Your task to perform on an android device: allow cookies in the chrome app Image 0: 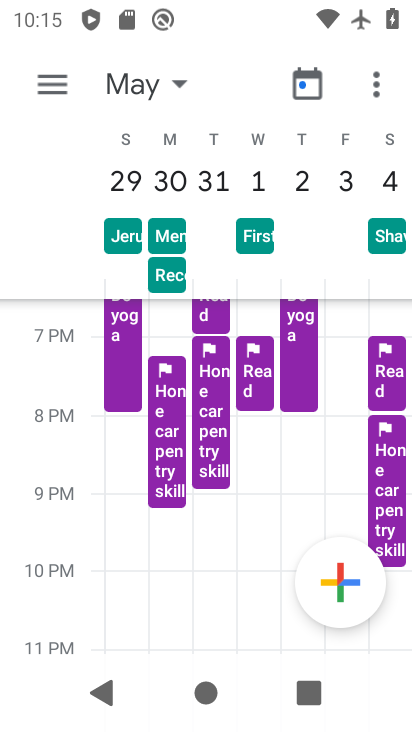
Step 0: press home button
Your task to perform on an android device: allow cookies in the chrome app Image 1: 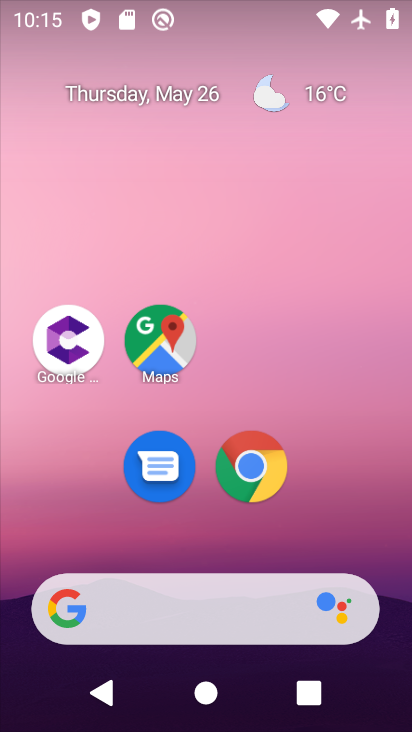
Step 1: click (259, 469)
Your task to perform on an android device: allow cookies in the chrome app Image 2: 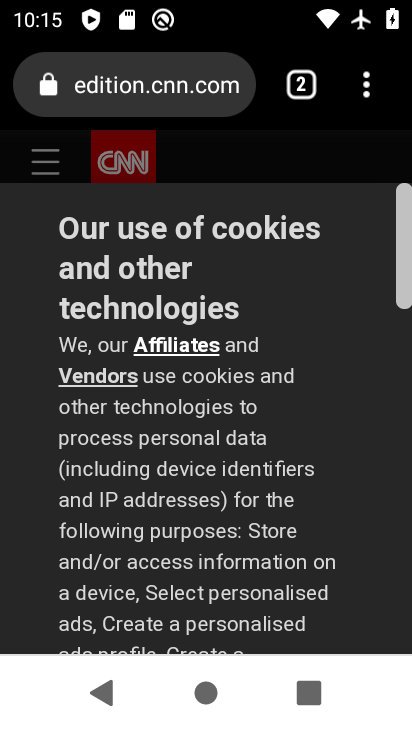
Step 2: click (367, 78)
Your task to perform on an android device: allow cookies in the chrome app Image 3: 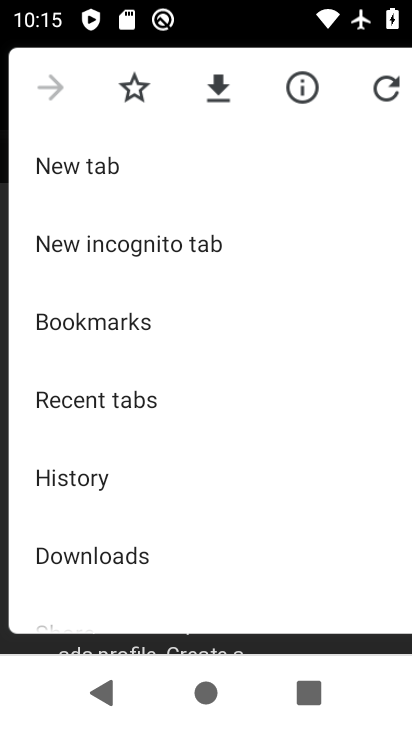
Step 3: drag from (206, 497) to (160, 175)
Your task to perform on an android device: allow cookies in the chrome app Image 4: 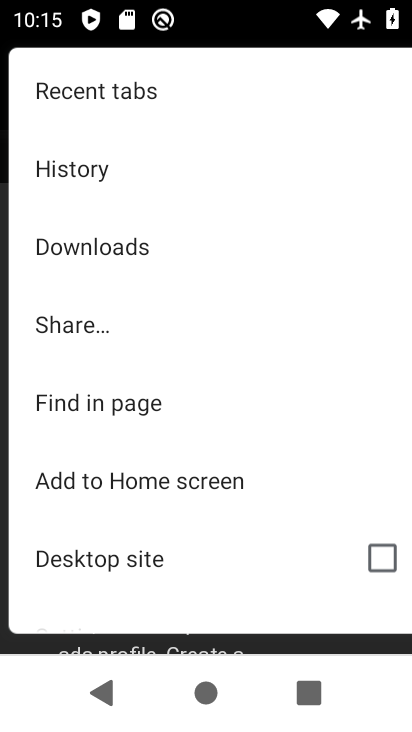
Step 4: drag from (211, 512) to (180, 178)
Your task to perform on an android device: allow cookies in the chrome app Image 5: 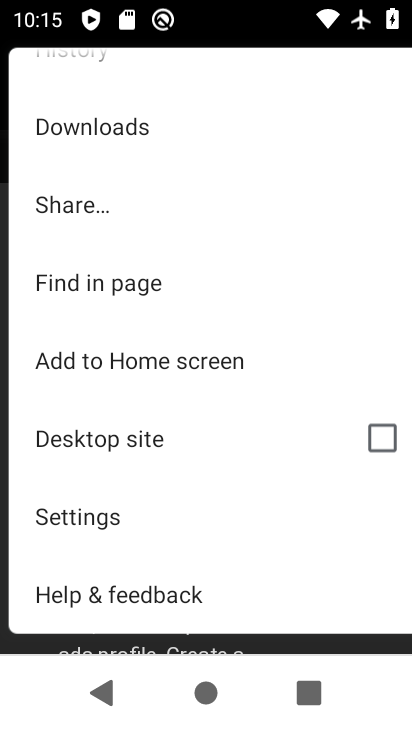
Step 5: click (85, 514)
Your task to perform on an android device: allow cookies in the chrome app Image 6: 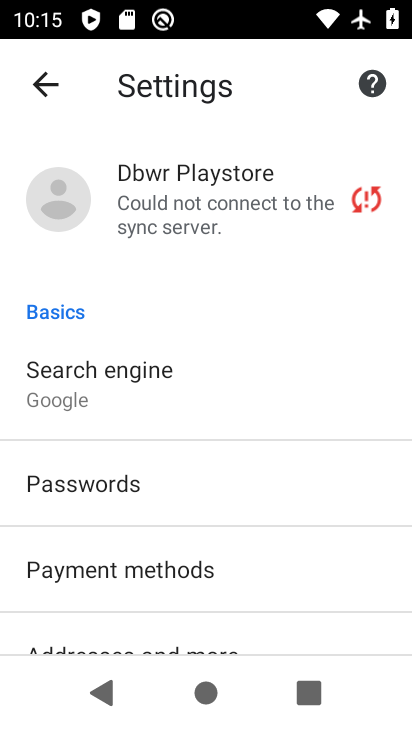
Step 6: drag from (292, 541) to (238, 237)
Your task to perform on an android device: allow cookies in the chrome app Image 7: 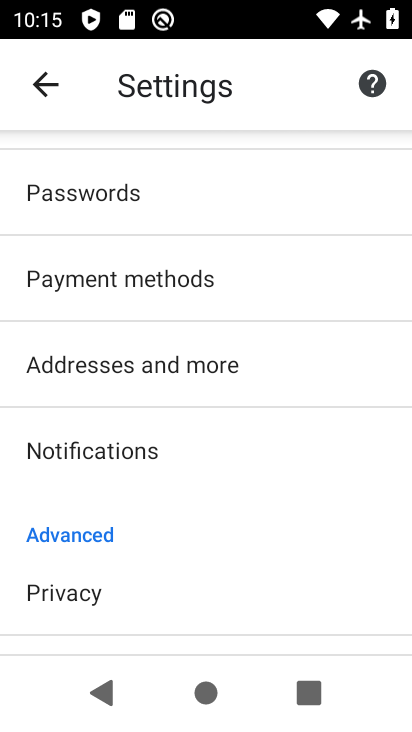
Step 7: drag from (197, 564) to (159, 243)
Your task to perform on an android device: allow cookies in the chrome app Image 8: 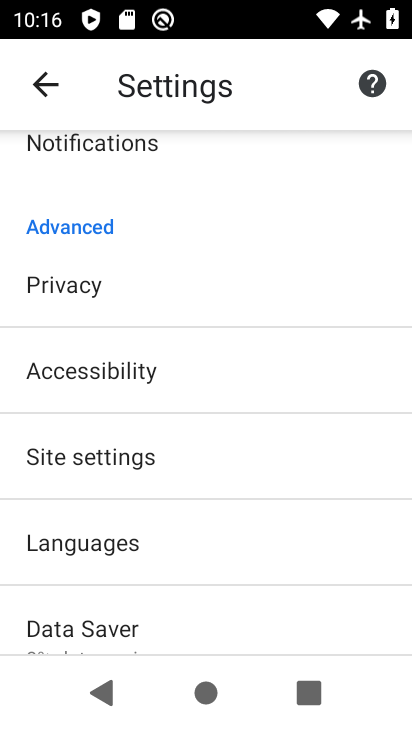
Step 8: click (98, 459)
Your task to perform on an android device: allow cookies in the chrome app Image 9: 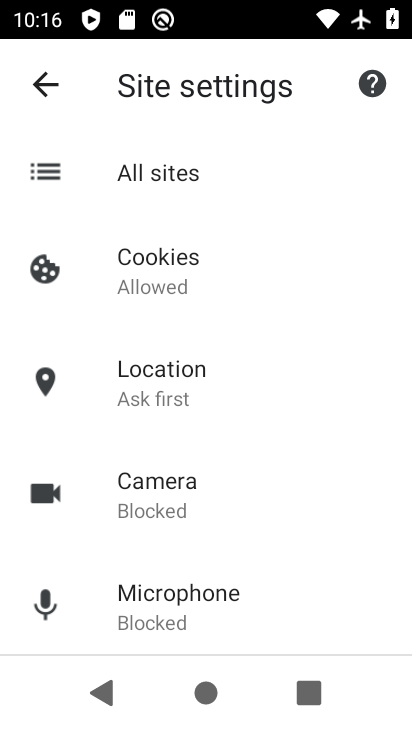
Step 9: click (148, 259)
Your task to perform on an android device: allow cookies in the chrome app Image 10: 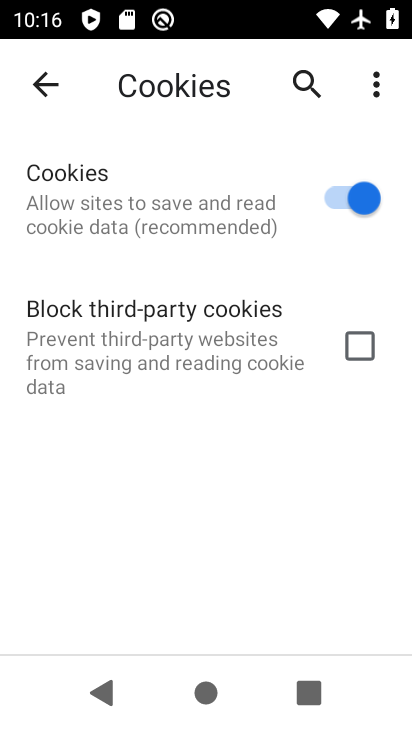
Step 10: task complete